Your task to perform on an android device: toggle translation in the chrome app Image 0: 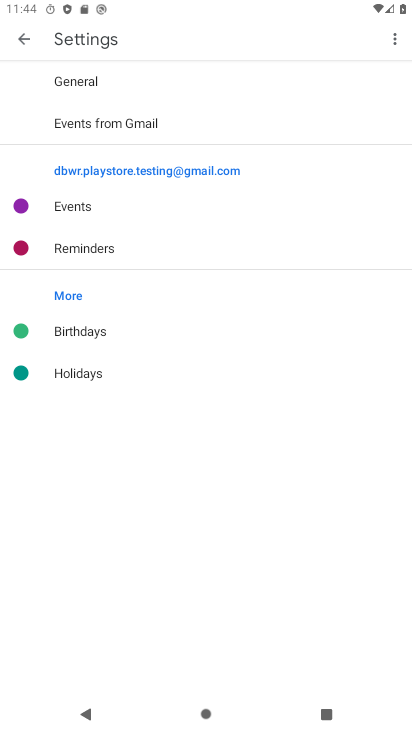
Step 0: press back button
Your task to perform on an android device: toggle translation in the chrome app Image 1: 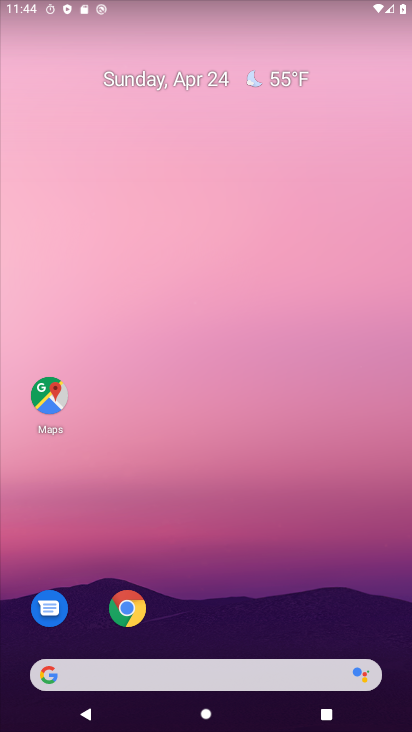
Step 1: click (137, 602)
Your task to perform on an android device: toggle translation in the chrome app Image 2: 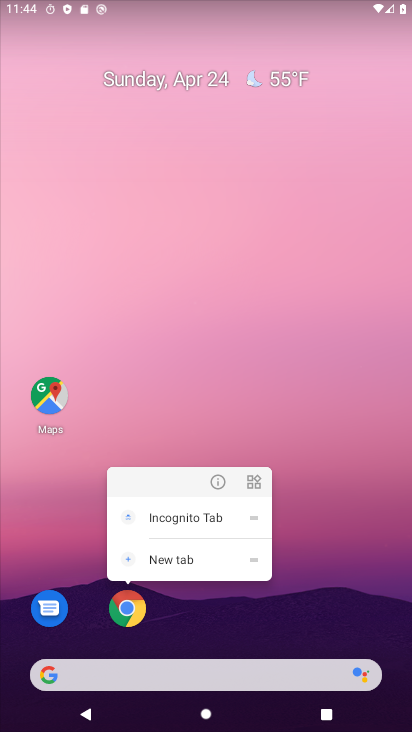
Step 2: click (118, 611)
Your task to perform on an android device: toggle translation in the chrome app Image 3: 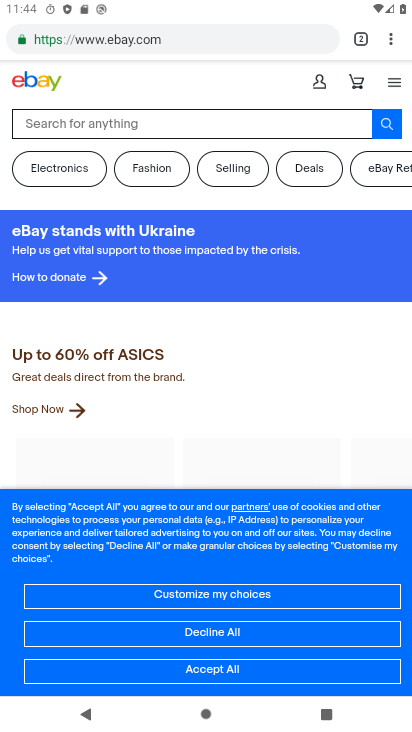
Step 3: drag from (391, 41) to (271, 517)
Your task to perform on an android device: toggle translation in the chrome app Image 4: 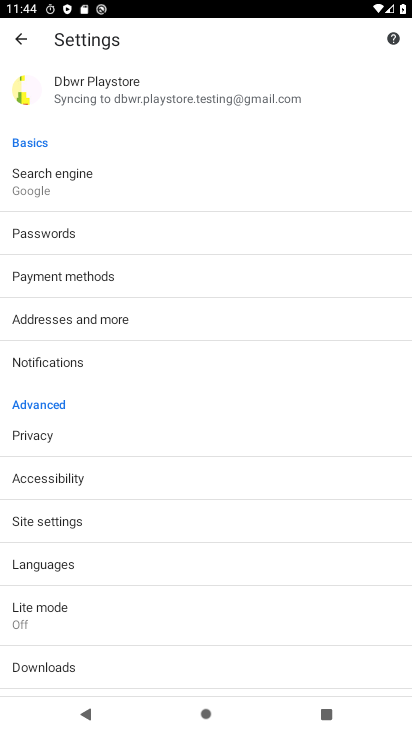
Step 4: click (52, 565)
Your task to perform on an android device: toggle translation in the chrome app Image 5: 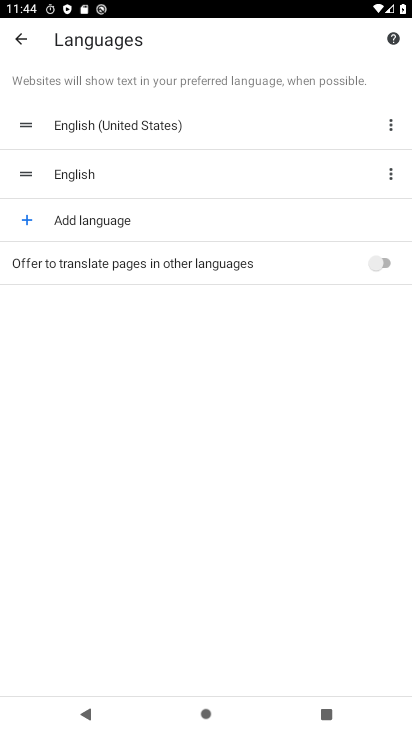
Step 5: click (382, 259)
Your task to perform on an android device: toggle translation in the chrome app Image 6: 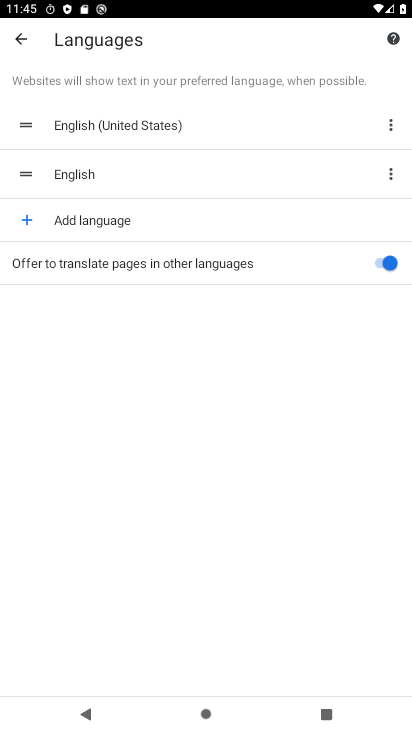
Step 6: task complete